Your task to perform on an android device: Open eBay Image 0: 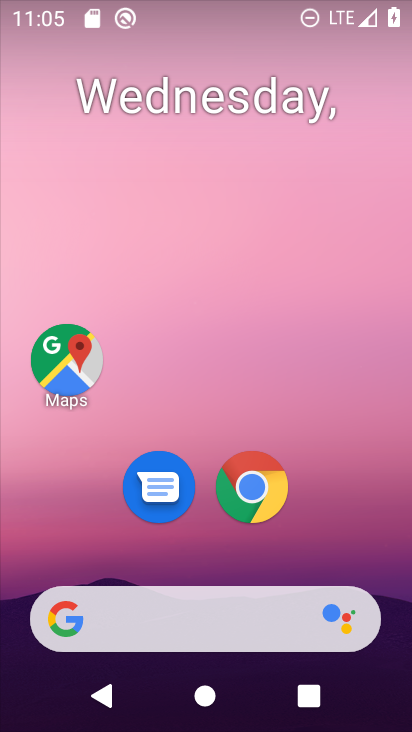
Step 0: click (255, 481)
Your task to perform on an android device: Open eBay Image 1: 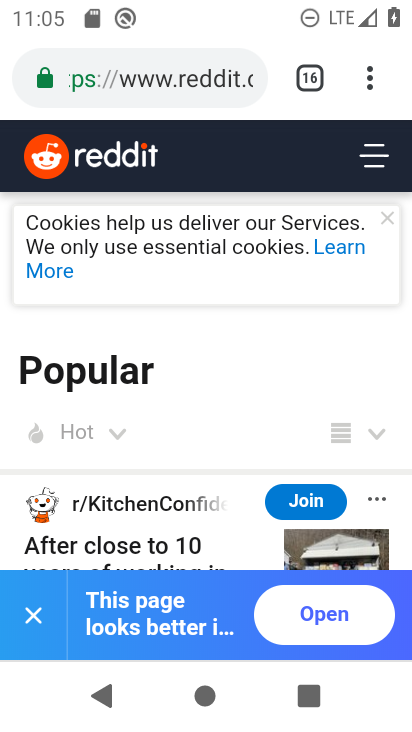
Step 1: click (369, 78)
Your task to perform on an android device: Open eBay Image 2: 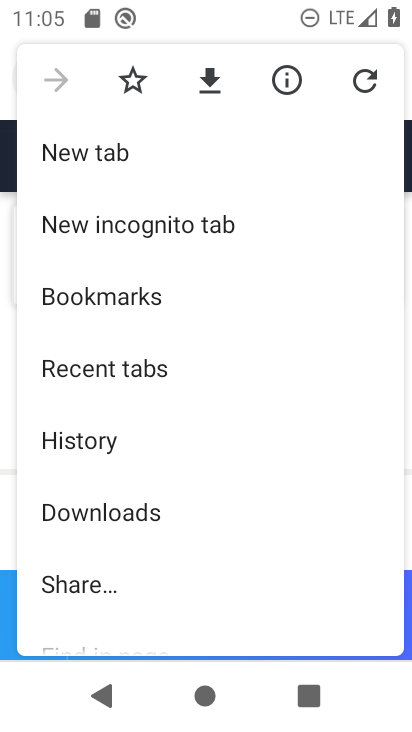
Step 2: click (112, 145)
Your task to perform on an android device: Open eBay Image 3: 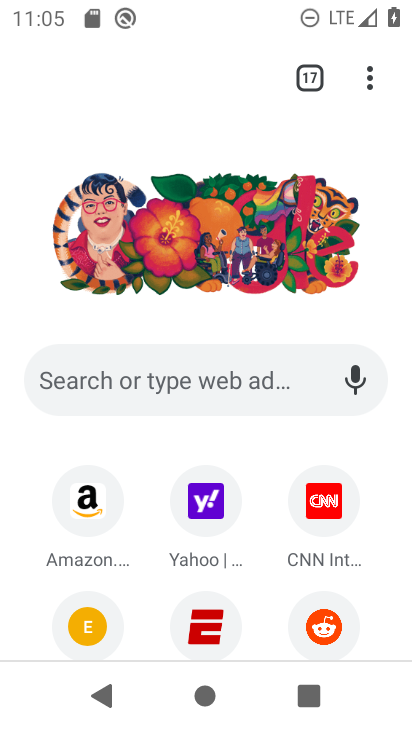
Step 3: click (169, 374)
Your task to perform on an android device: Open eBay Image 4: 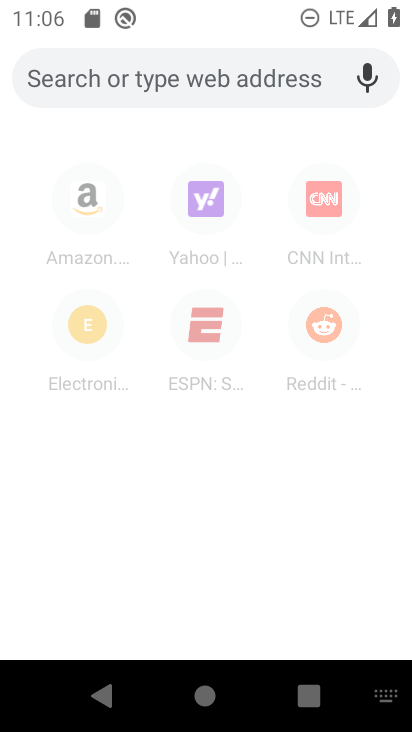
Step 4: type "ebay"
Your task to perform on an android device: Open eBay Image 5: 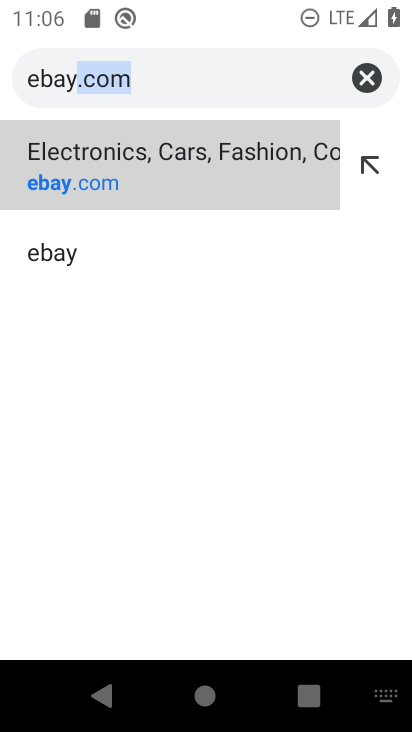
Step 5: click (112, 153)
Your task to perform on an android device: Open eBay Image 6: 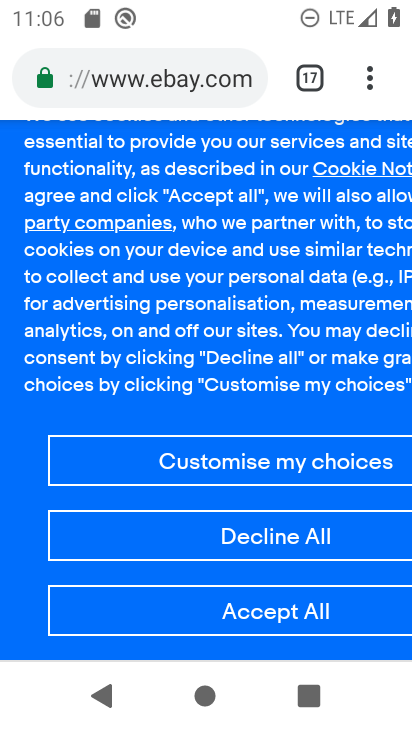
Step 6: task complete